Your task to perform on an android device: empty trash in google photos Image 0: 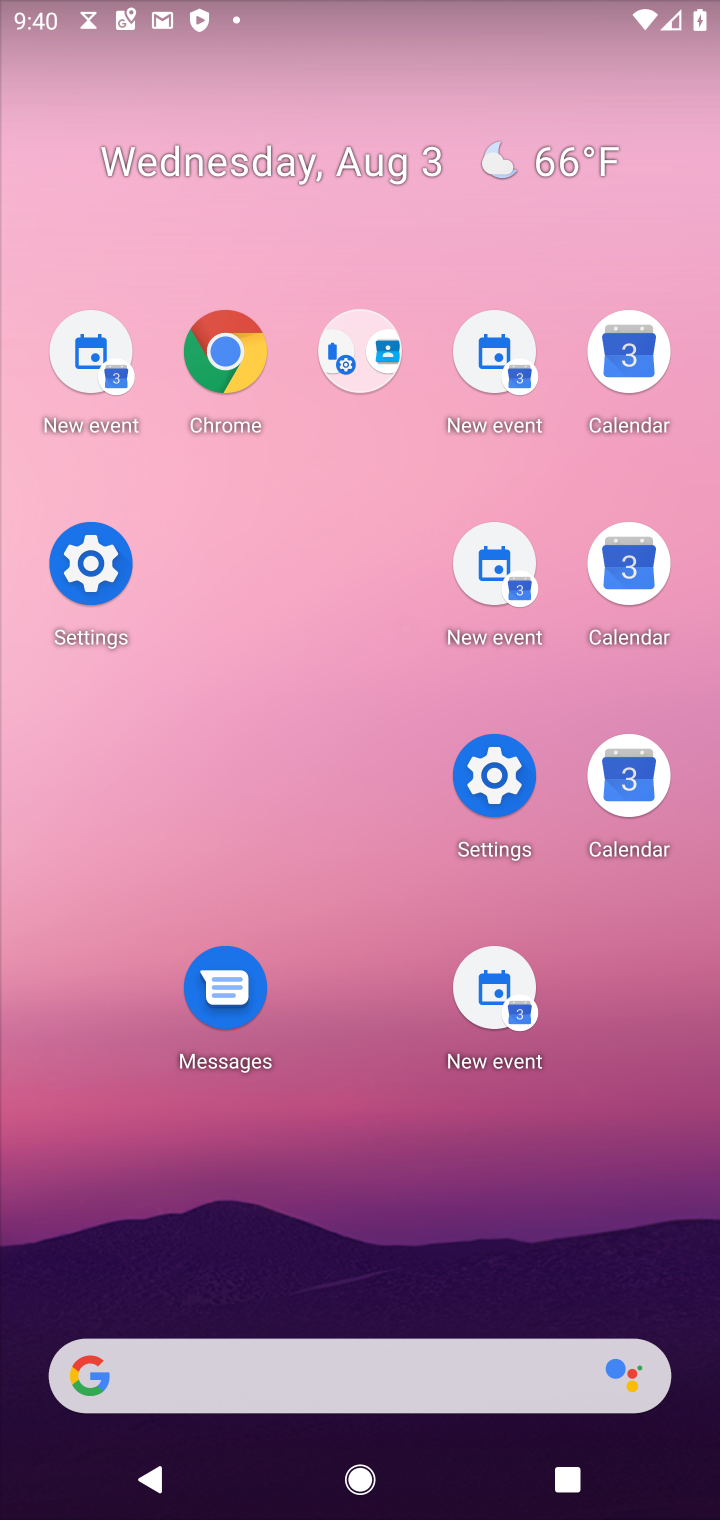
Step 0: drag from (486, 1273) to (235, 101)
Your task to perform on an android device: empty trash in google photos Image 1: 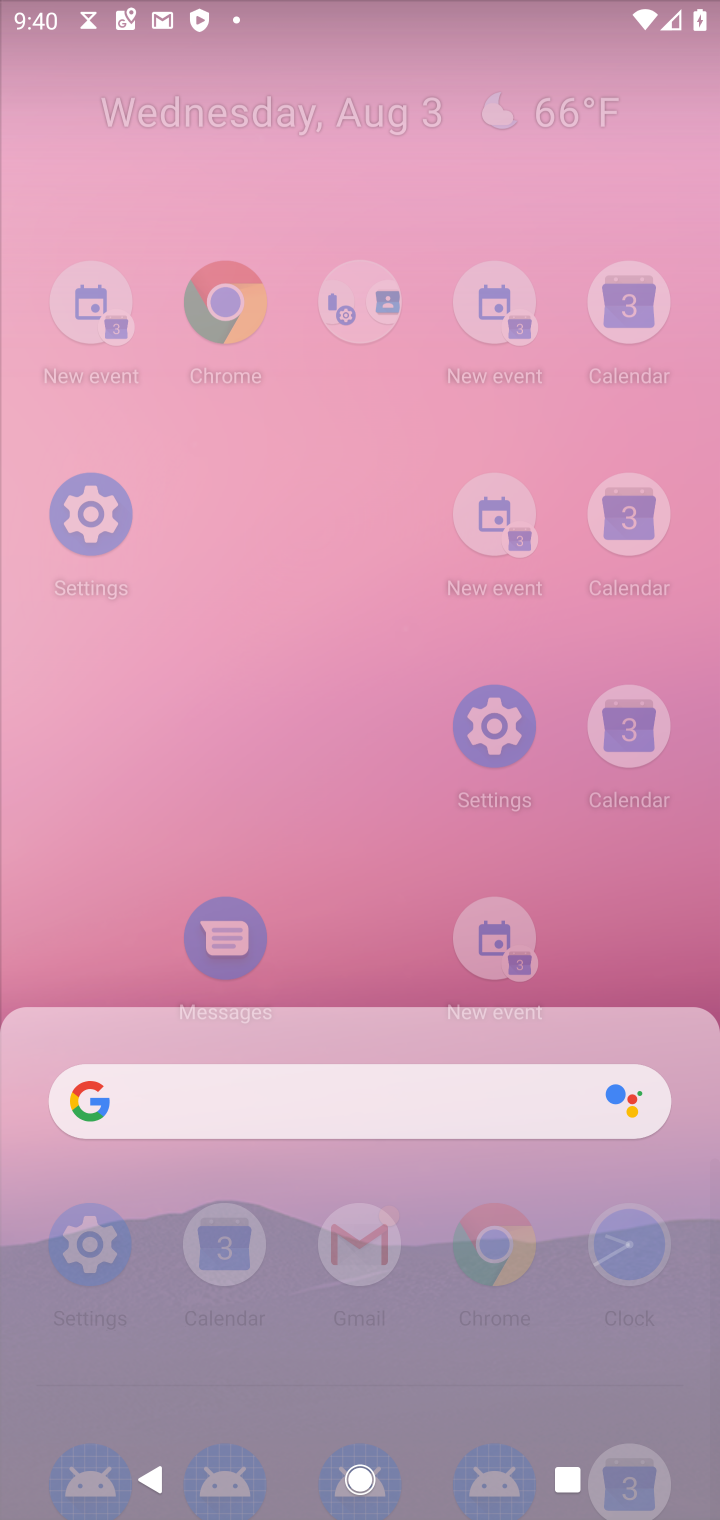
Step 1: drag from (358, 97) to (447, 331)
Your task to perform on an android device: empty trash in google photos Image 2: 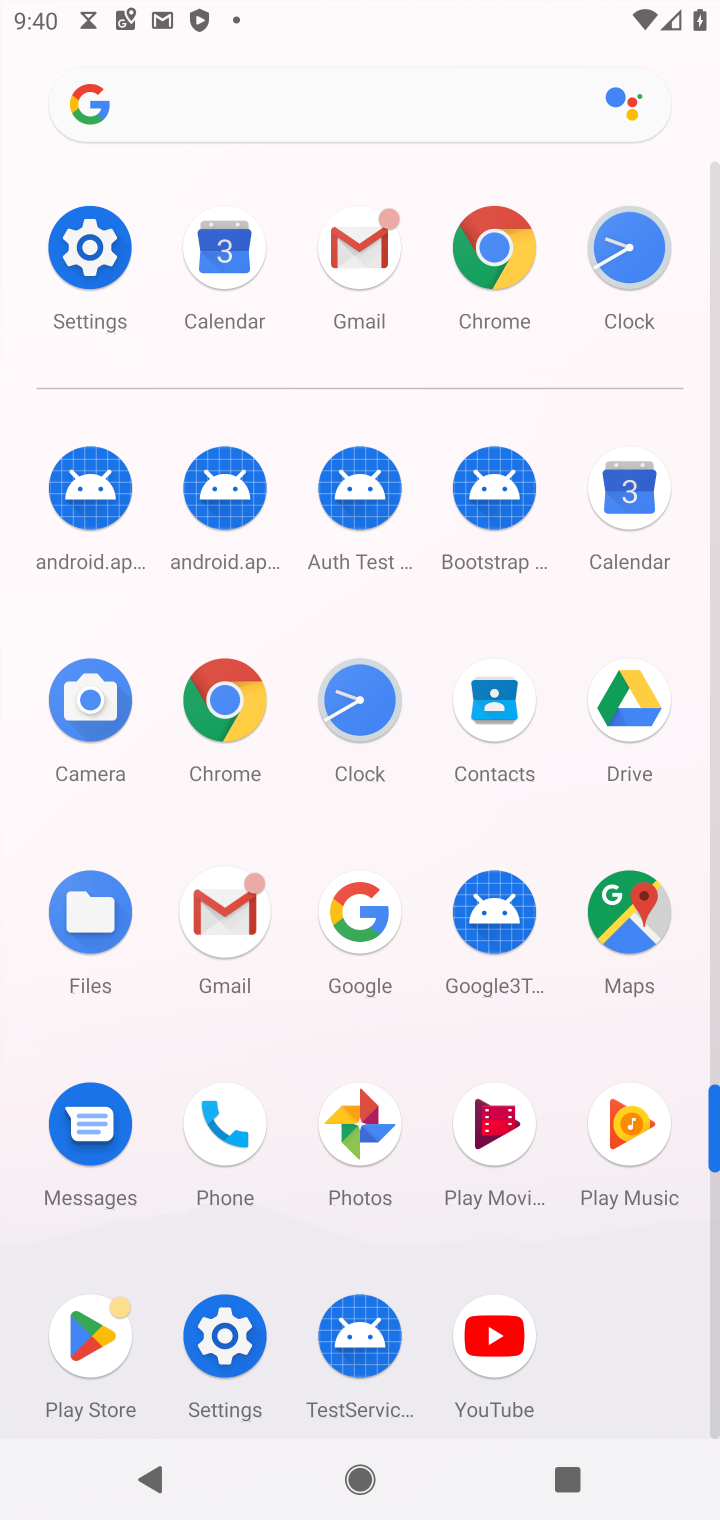
Step 2: click (375, 1107)
Your task to perform on an android device: empty trash in google photos Image 3: 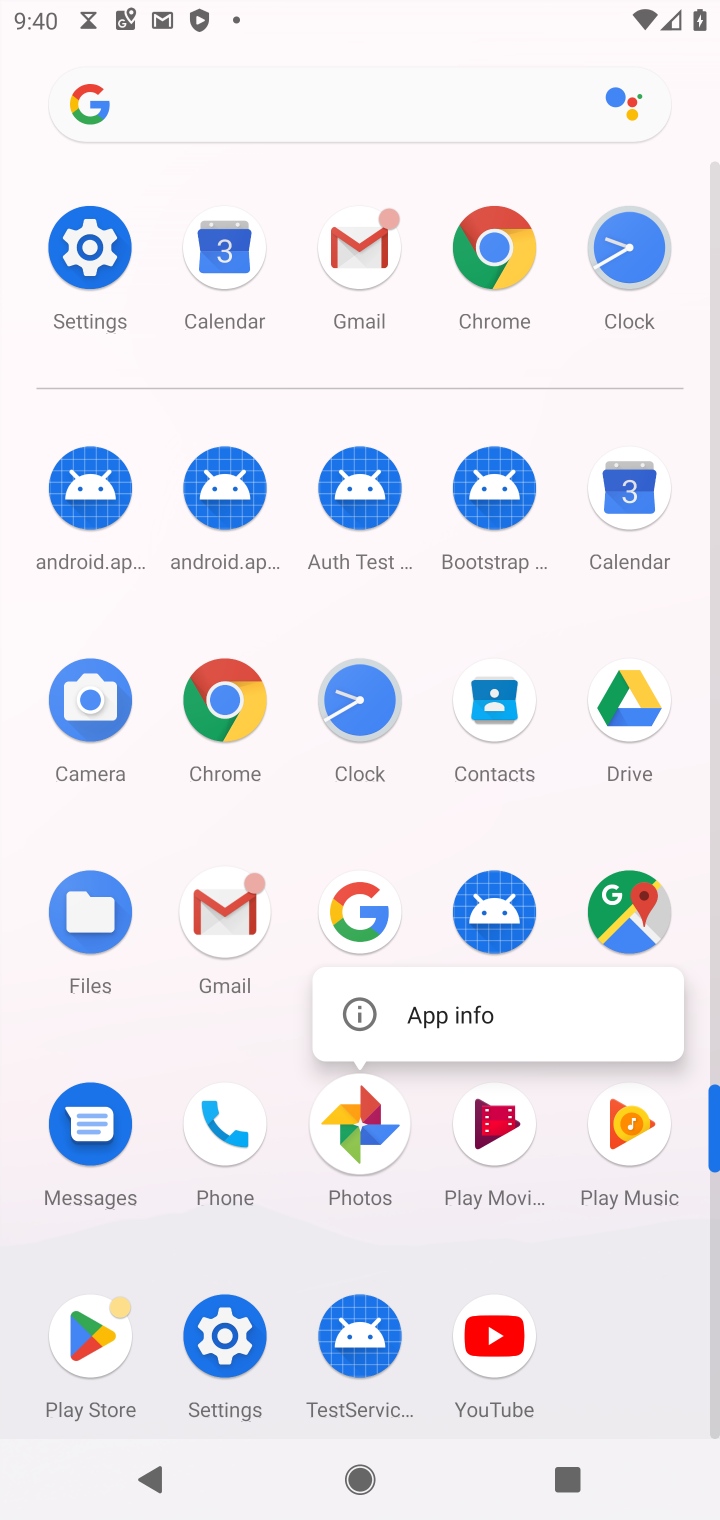
Step 3: click (379, 1107)
Your task to perform on an android device: empty trash in google photos Image 4: 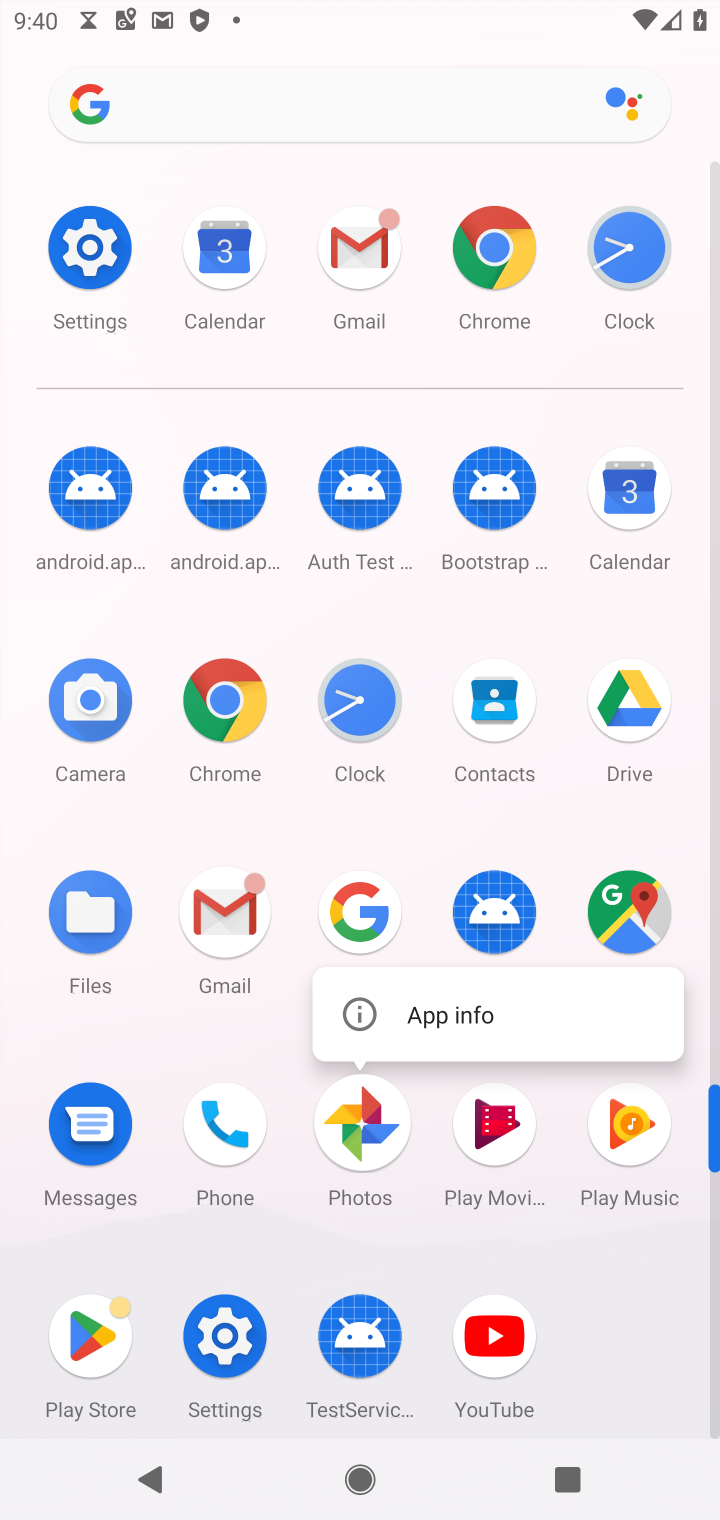
Step 4: drag from (345, 1145) to (376, 1042)
Your task to perform on an android device: empty trash in google photos Image 5: 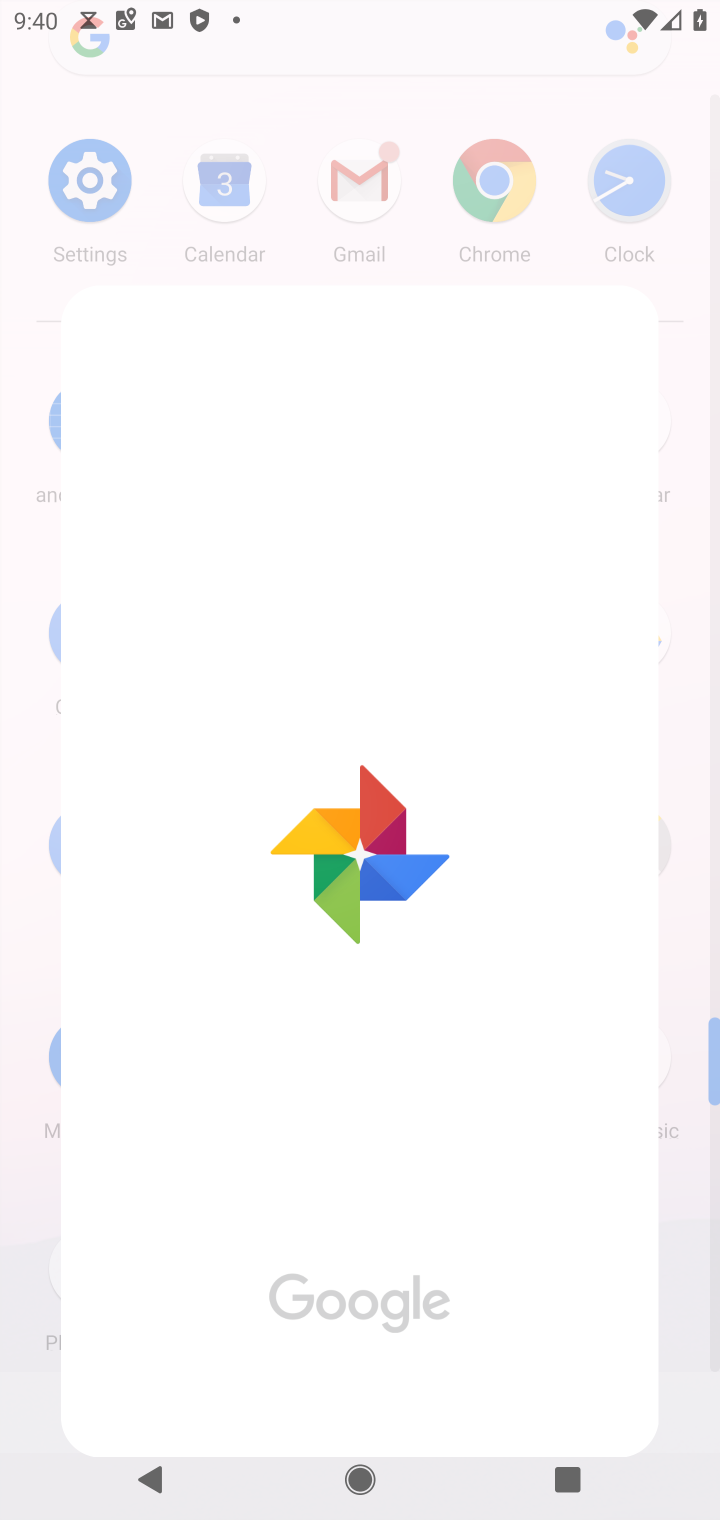
Step 5: click (342, 1106)
Your task to perform on an android device: empty trash in google photos Image 6: 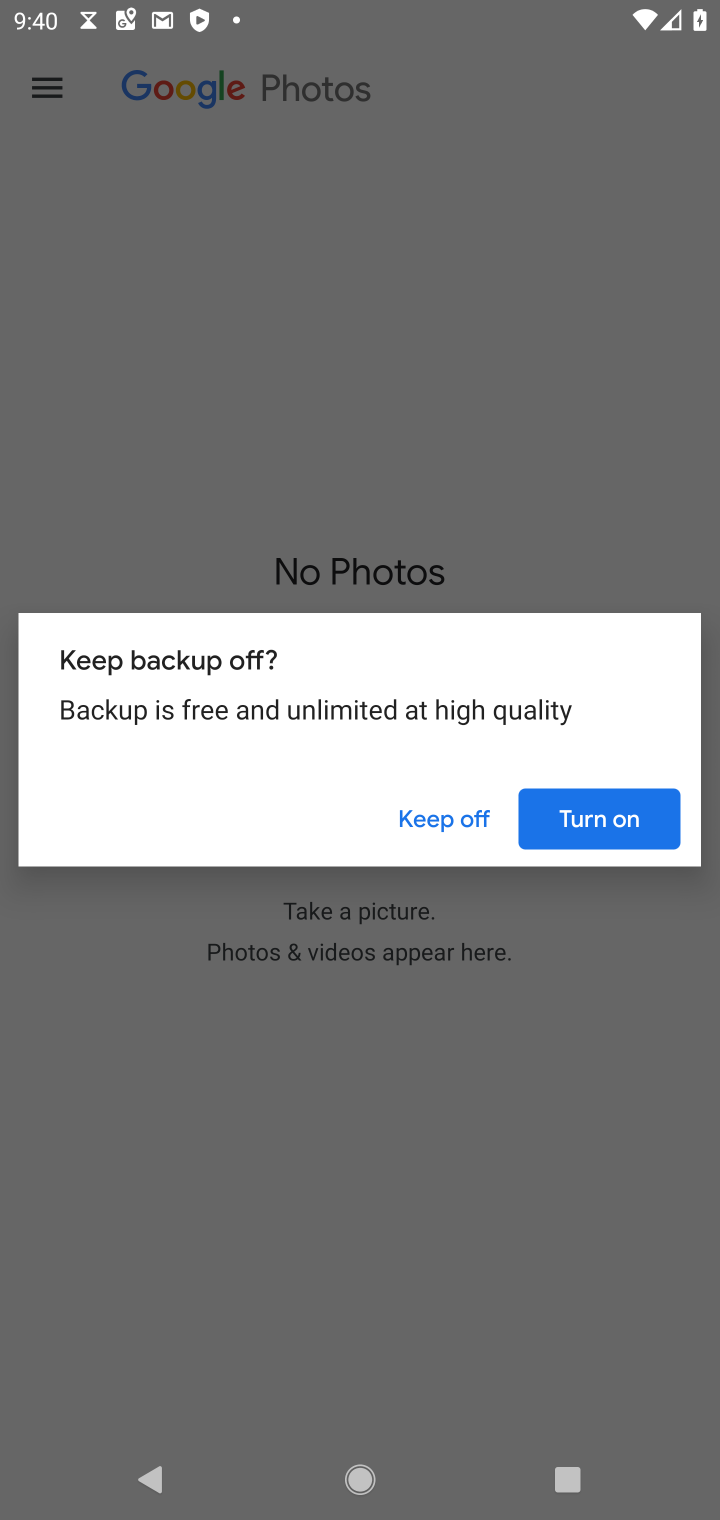
Step 6: click (460, 810)
Your task to perform on an android device: empty trash in google photos Image 7: 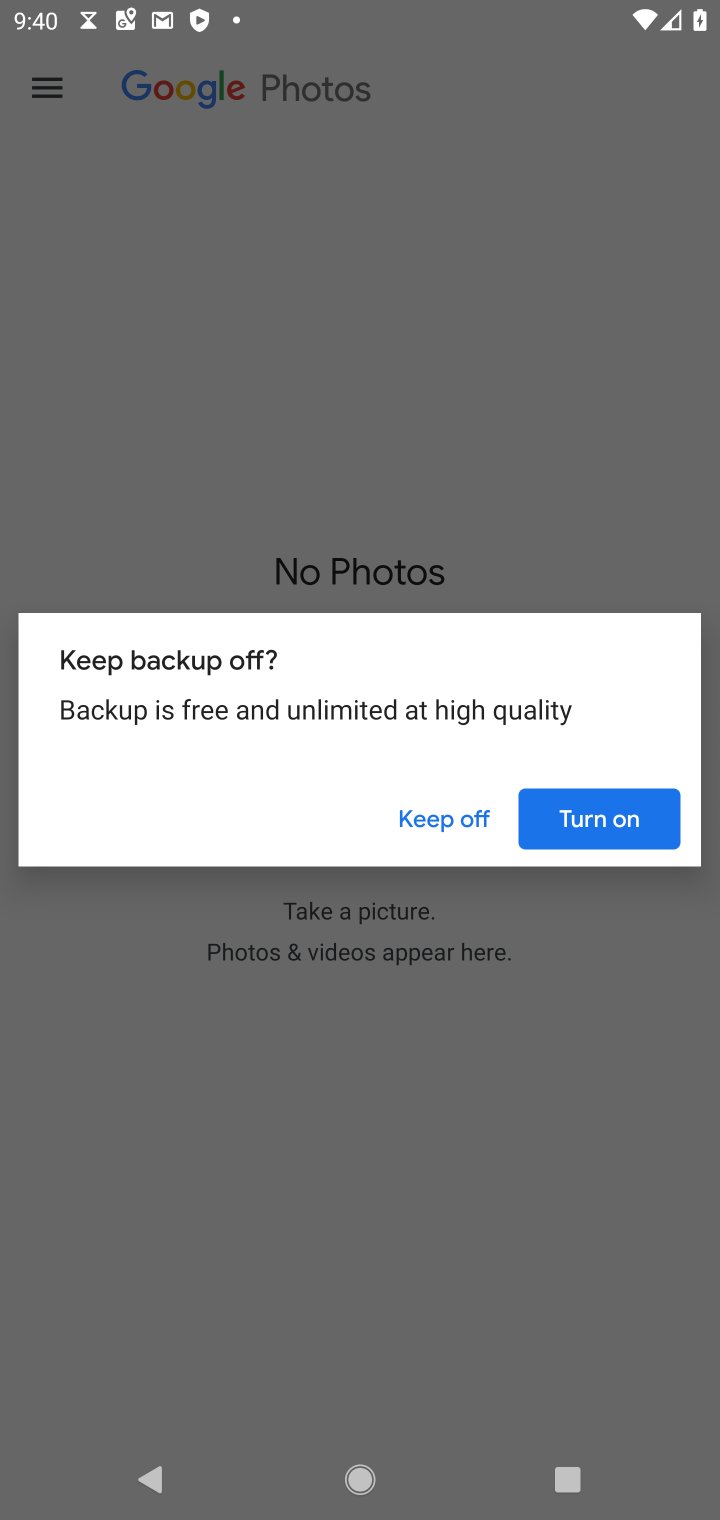
Step 7: click (462, 808)
Your task to perform on an android device: empty trash in google photos Image 8: 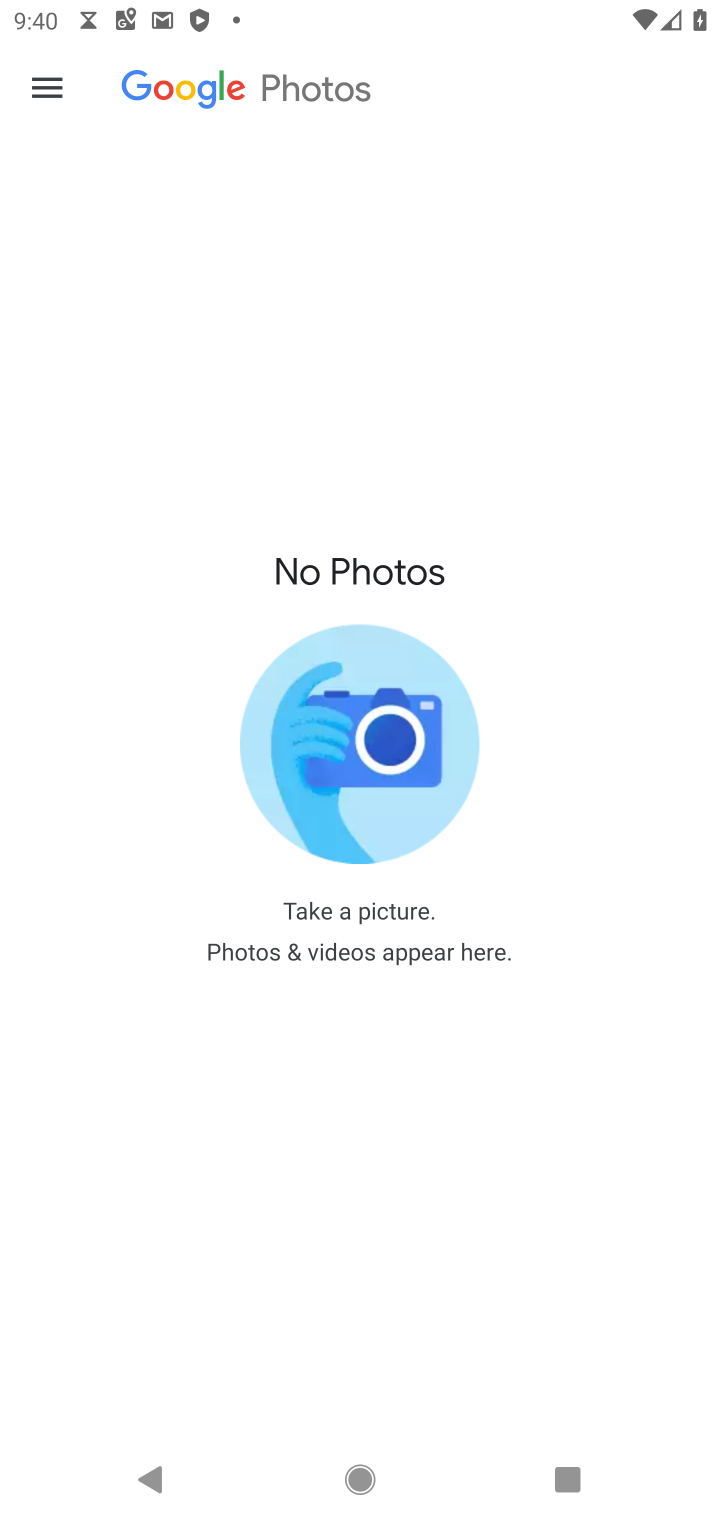
Step 8: click (36, 100)
Your task to perform on an android device: empty trash in google photos Image 9: 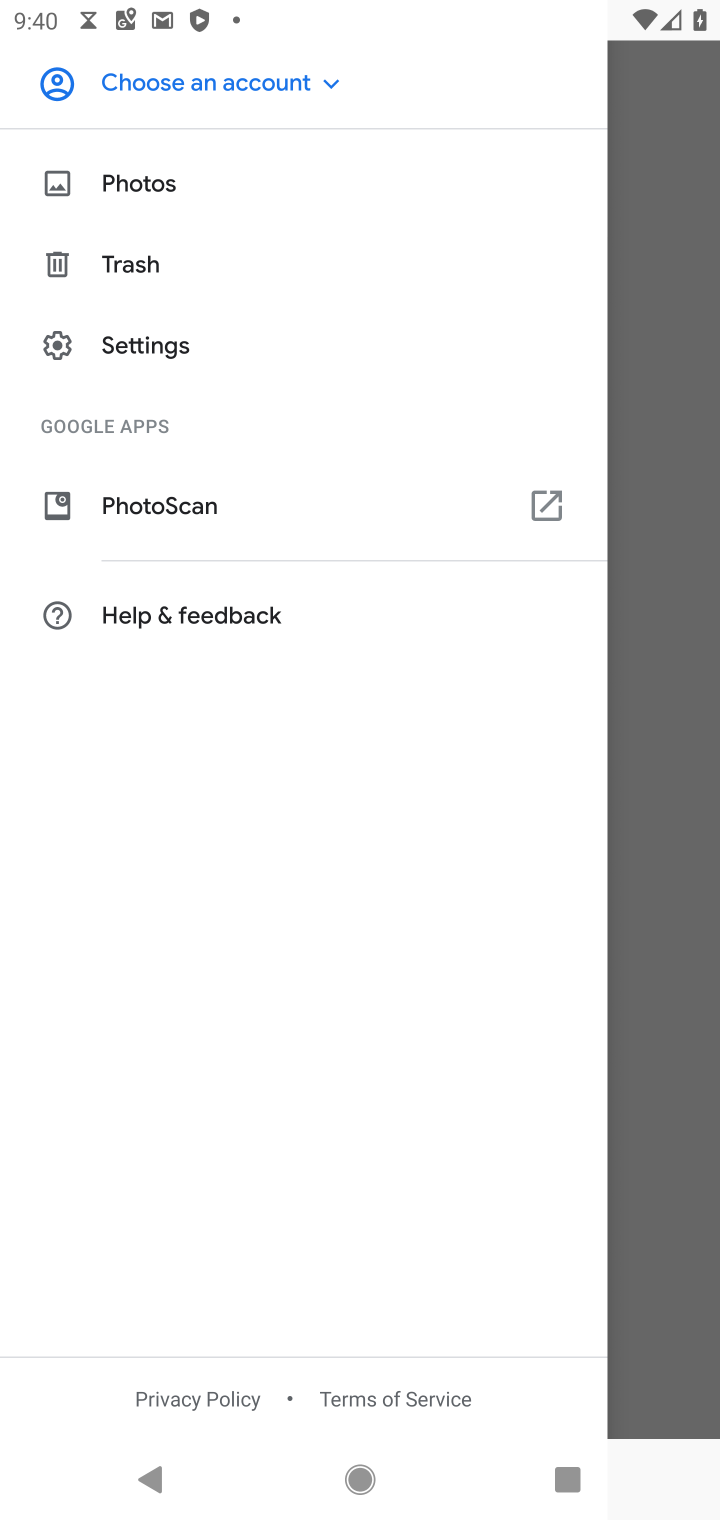
Step 9: click (150, 269)
Your task to perform on an android device: empty trash in google photos Image 10: 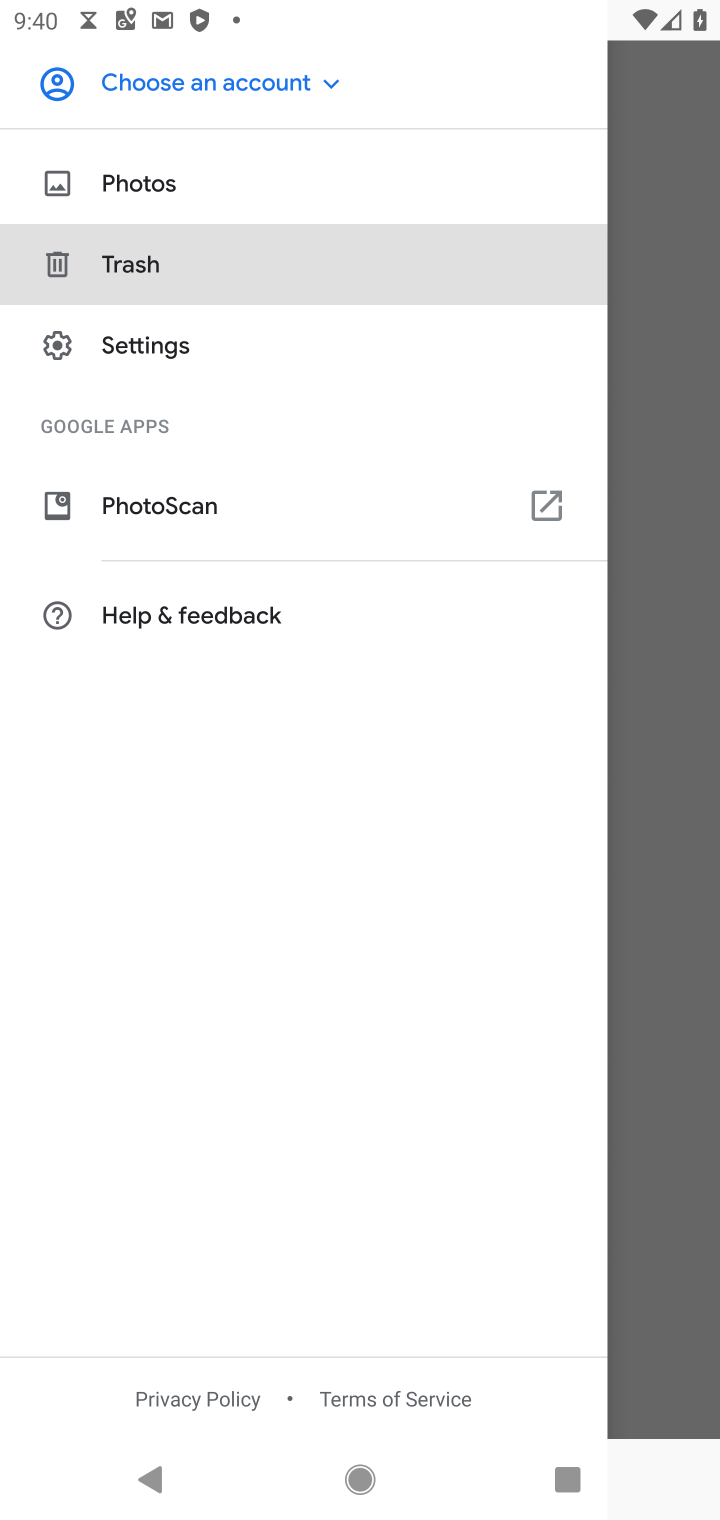
Step 10: click (150, 269)
Your task to perform on an android device: empty trash in google photos Image 11: 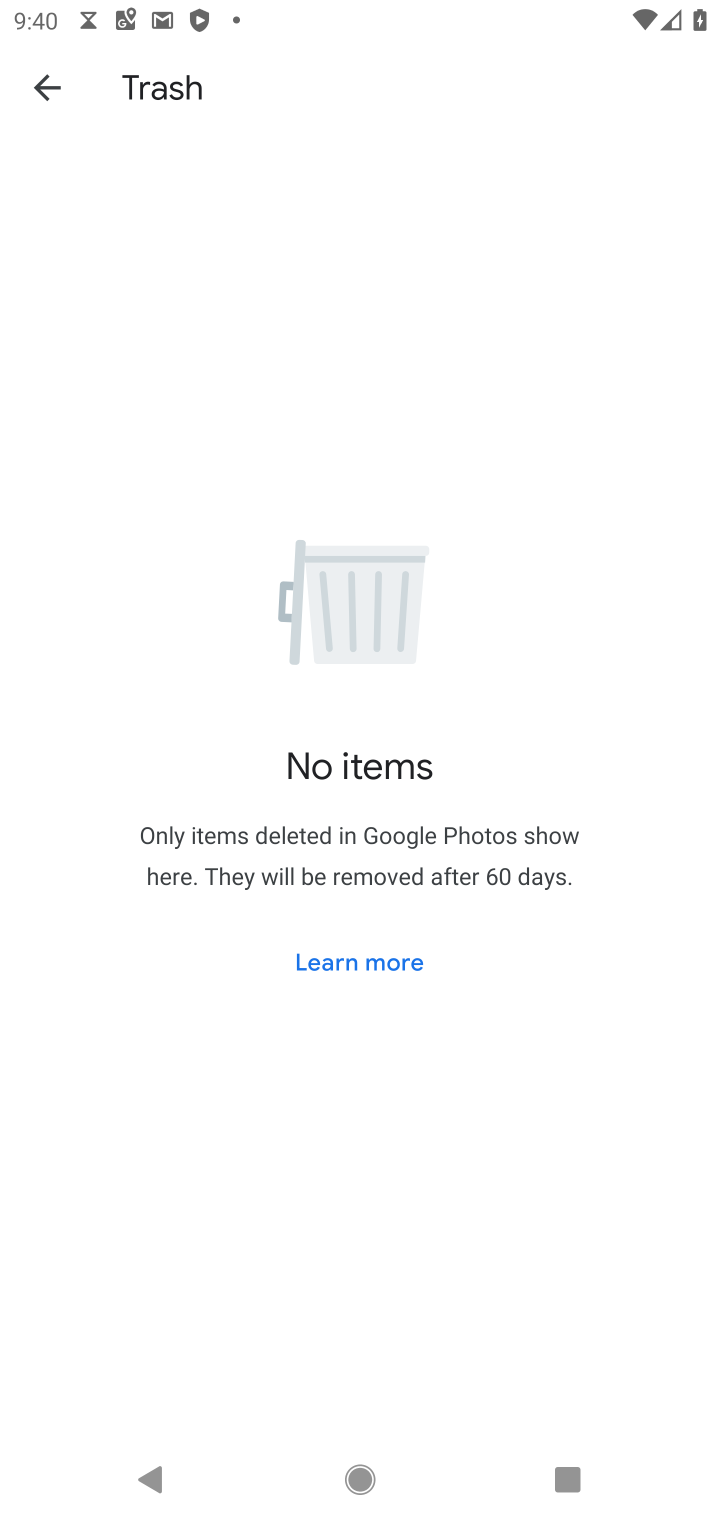
Step 11: task complete